Your task to perform on an android device: turn off picture-in-picture Image 0: 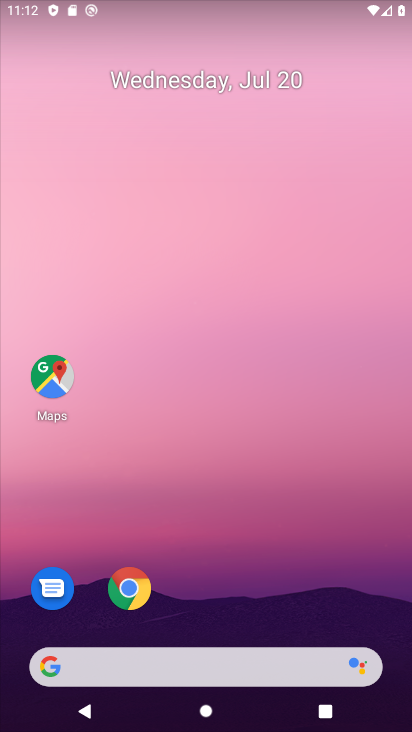
Step 0: press home button
Your task to perform on an android device: turn off picture-in-picture Image 1: 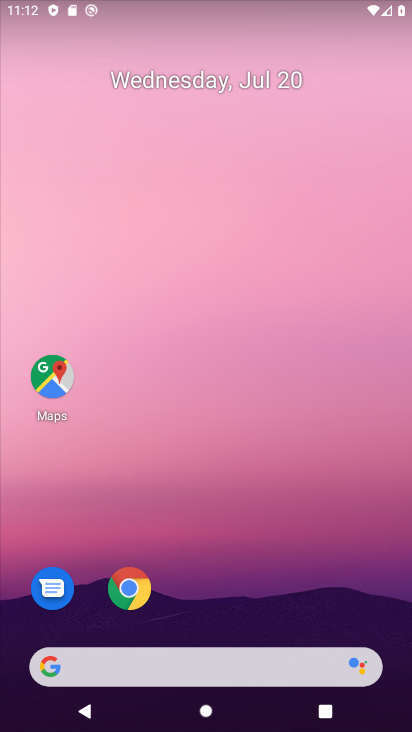
Step 1: click (124, 594)
Your task to perform on an android device: turn off picture-in-picture Image 2: 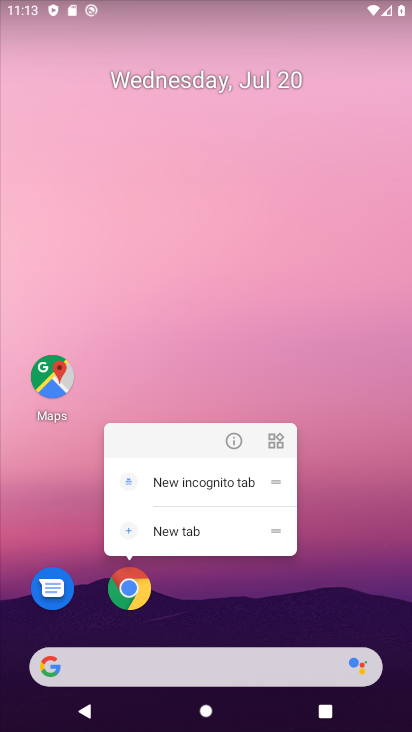
Step 2: click (231, 438)
Your task to perform on an android device: turn off picture-in-picture Image 3: 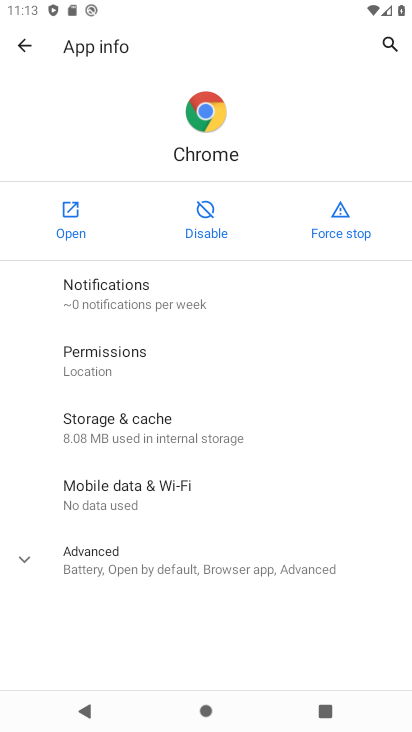
Step 3: click (20, 558)
Your task to perform on an android device: turn off picture-in-picture Image 4: 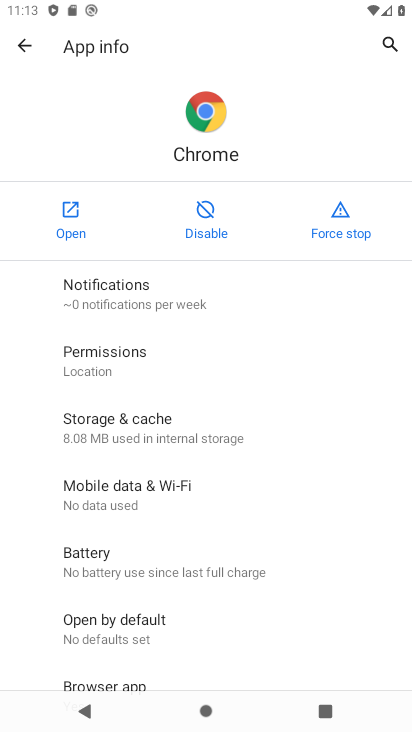
Step 4: drag from (237, 670) to (226, 314)
Your task to perform on an android device: turn off picture-in-picture Image 5: 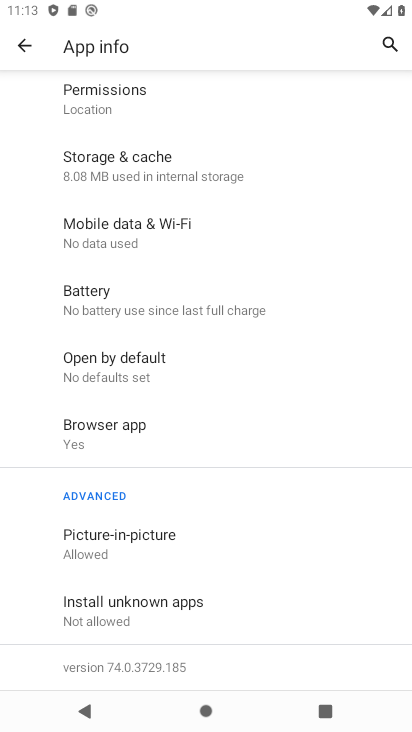
Step 5: click (144, 540)
Your task to perform on an android device: turn off picture-in-picture Image 6: 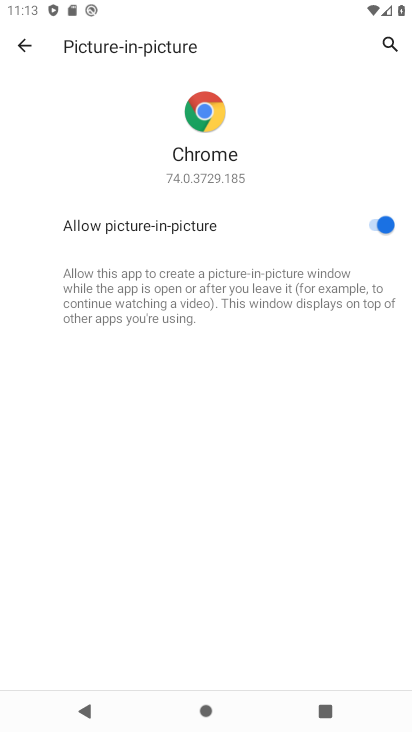
Step 6: click (378, 223)
Your task to perform on an android device: turn off picture-in-picture Image 7: 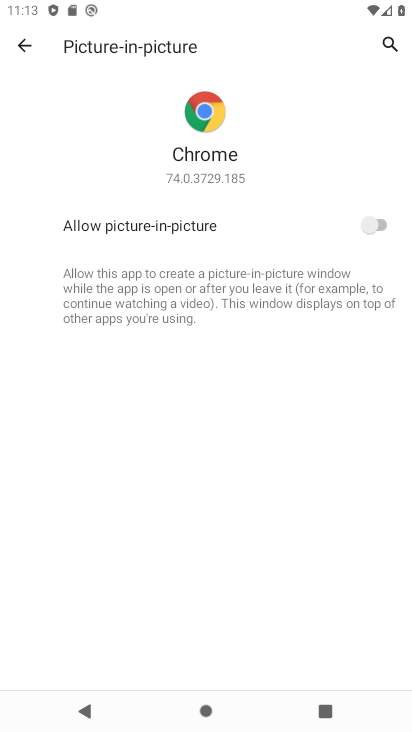
Step 7: task complete